Your task to perform on an android device: What's the weather going to be this weekend? Image 0: 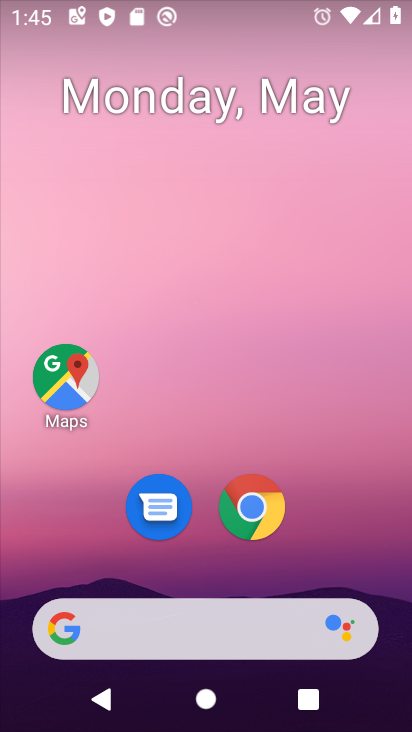
Step 0: drag from (202, 726) to (200, 59)
Your task to perform on an android device: What's the weather going to be this weekend? Image 1: 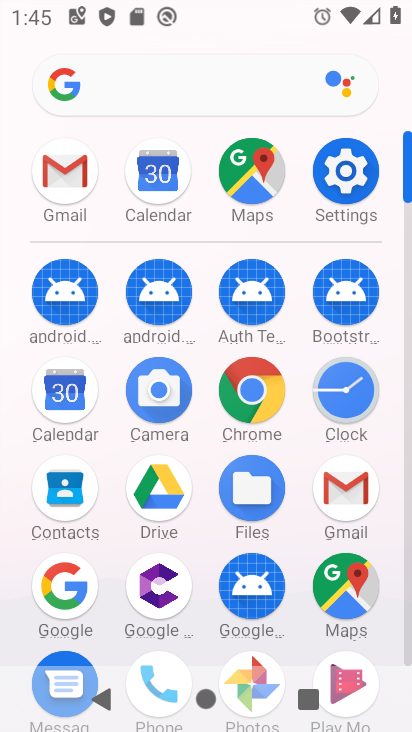
Step 1: click (65, 590)
Your task to perform on an android device: What's the weather going to be this weekend? Image 2: 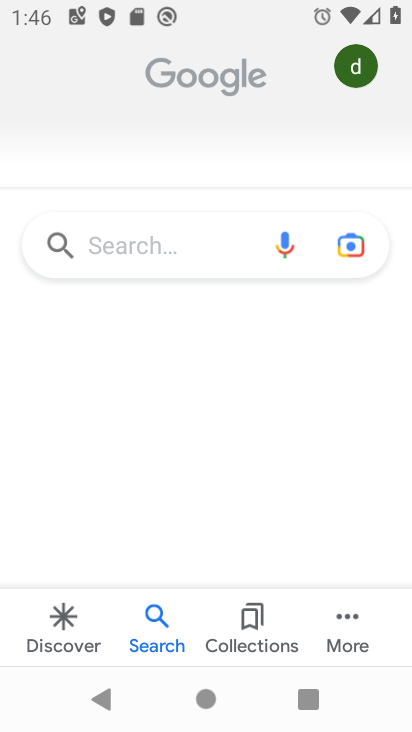
Step 2: click (134, 248)
Your task to perform on an android device: What's the weather going to be this weekend? Image 3: 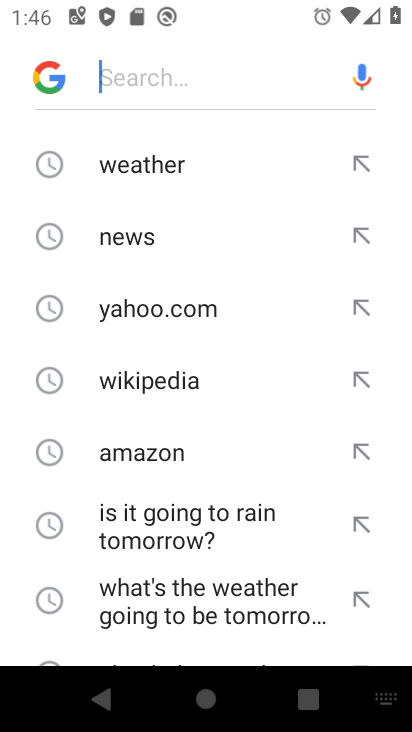
Step 3: click (133, 164)
Your task to perform on an android device: What's the weather going to be this weekend? Image 4: 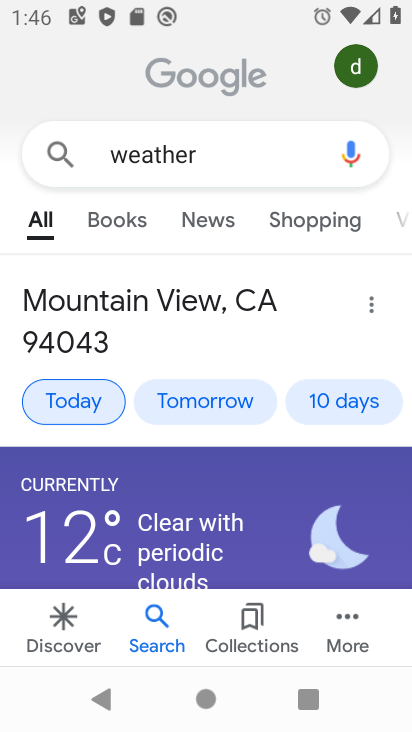
Step 4: click (324, 397)
Your task to perform on an android device: What's the weather going to be this weekend? Image 5: 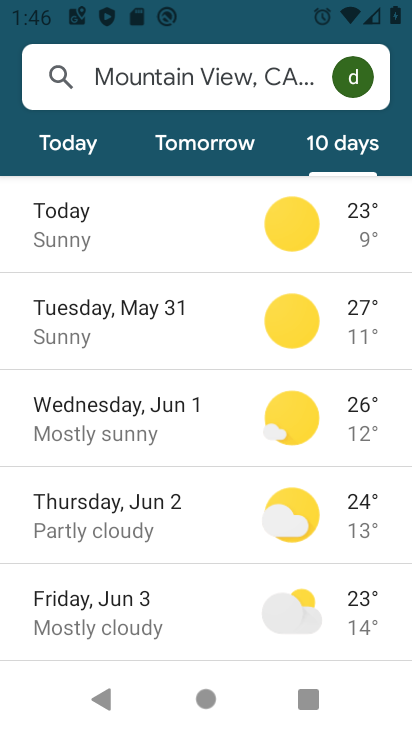
Step 5: task complete